Your task to perform on an android device: Go to Amazon Image 0: 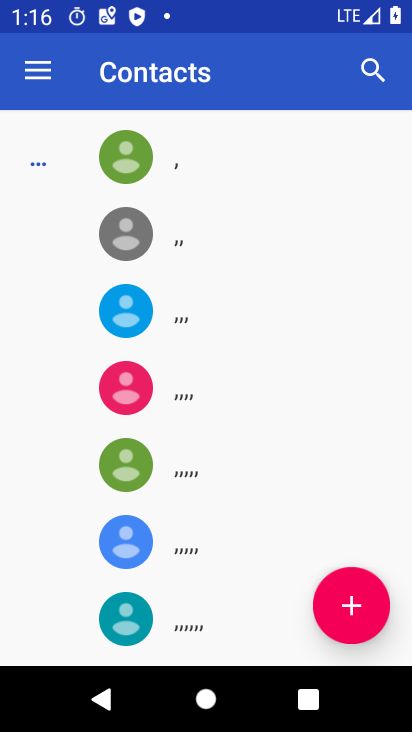
Step 0: press home button
Your task to perform on an android device: Go to Amazon Image 1: 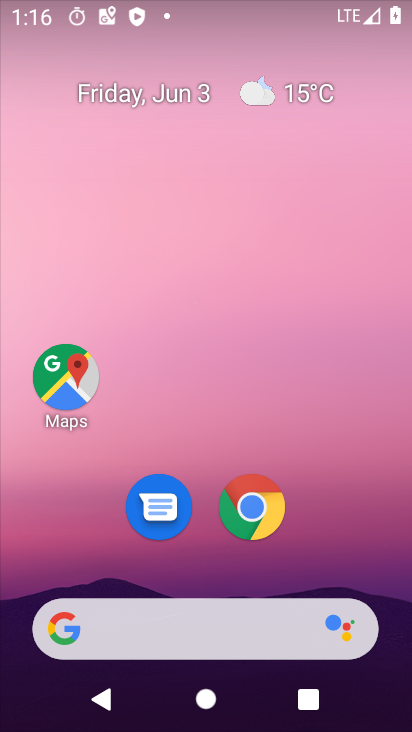
Step 1: drag from (393, 632) to (404, 413)
Your task to perform on an android device: Go to Amazon Image 2: 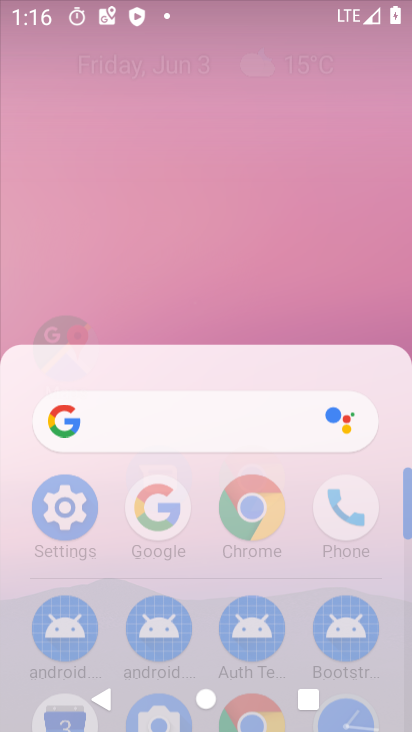
Step 2: click (321, 162)
Your task to perform on an android device: Go to Amazon Image 3: 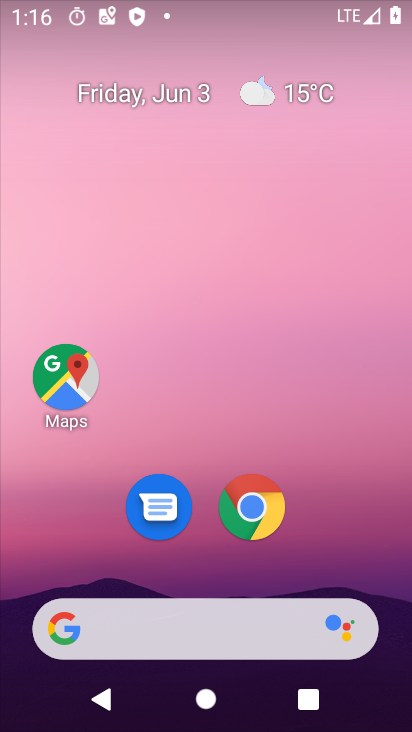
Step 3: click (394, 617)
Your task to perform on an android device: Go to Amazon Image 4: 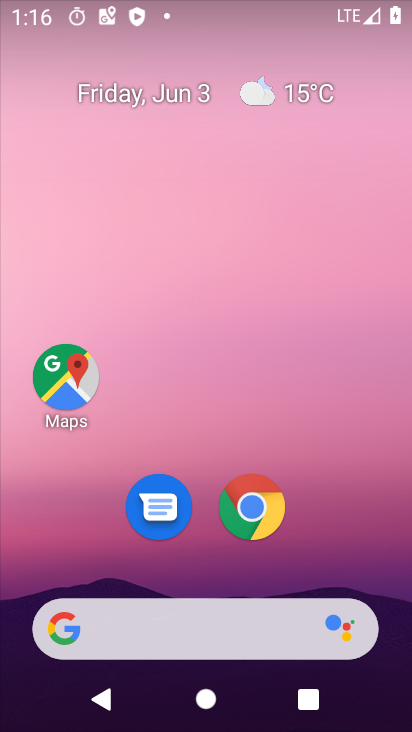
Step 4: drag from (336, 72) to (315, 35)
Your task to perform on an android device: Go to Amazon Image 5: 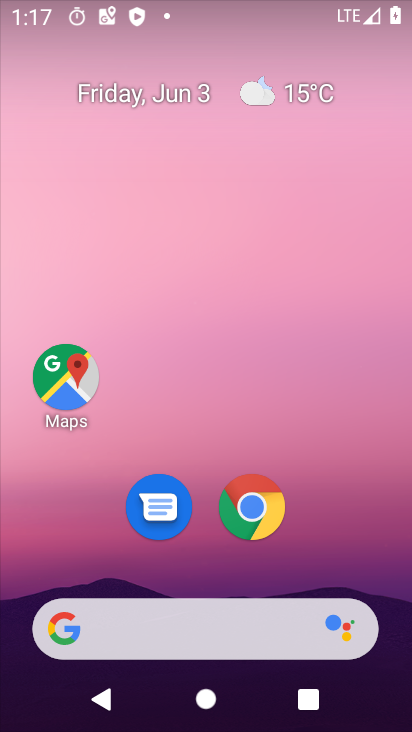
Step 5: drag from (395, 548) to (310, 92)
Your task to perform on an android device: Go to Amazon Image 6: 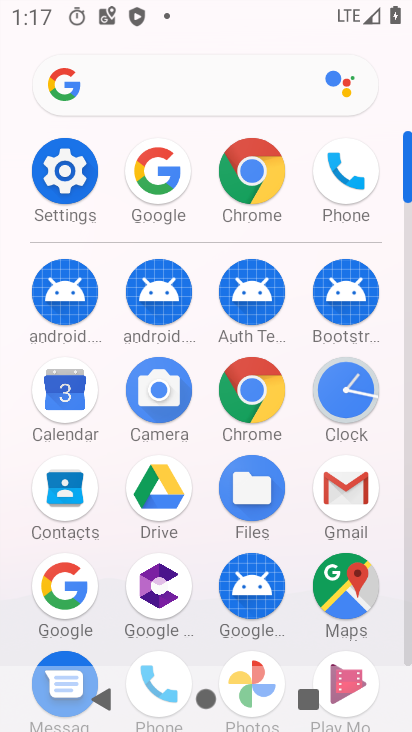
Step 6: click (68, 579)
Your task to perform on an android device: Go to Amazon Image 7: 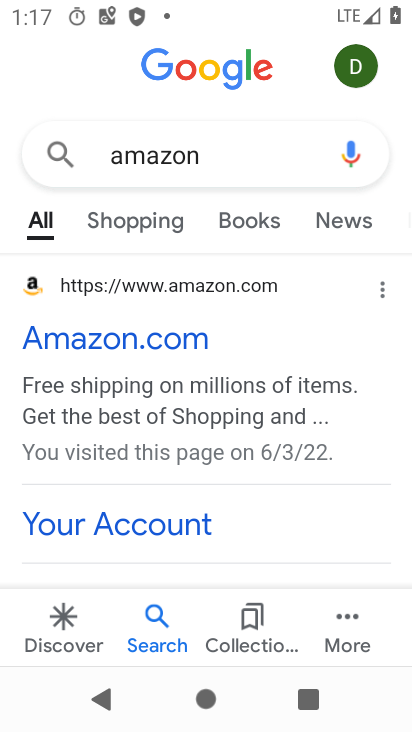
Step 7: task complete